Your task to perform on an android device: change notification settings in the gmail app Image 0: 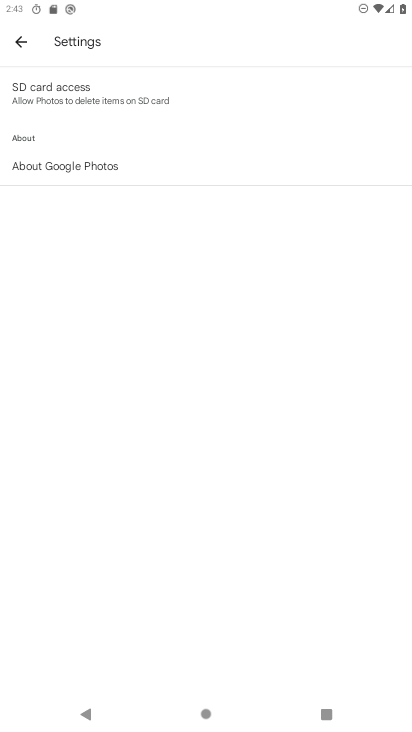
Step 0: press home button
Your task to perform on an android device: change notification settings in the gmail app Image 1: 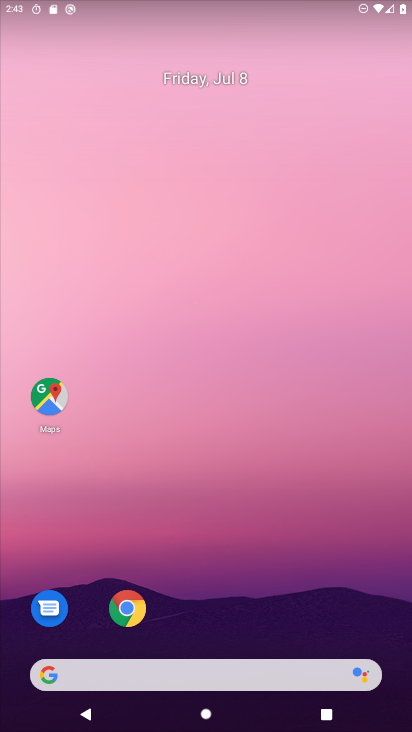
Step 1: drag from (241, 723) to (243, 166)
Your task to perform on an android device: change notification settings in the gmail app Image 2: 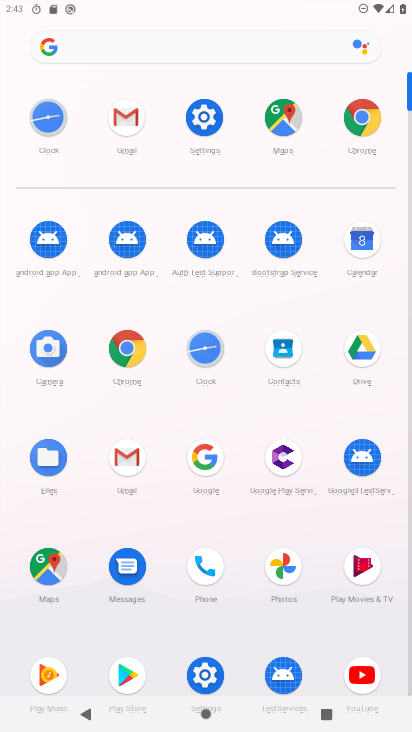
Step 2: click (124, 464)
Your task to perform on an android device: change notification settings in the gmail app Image 3: 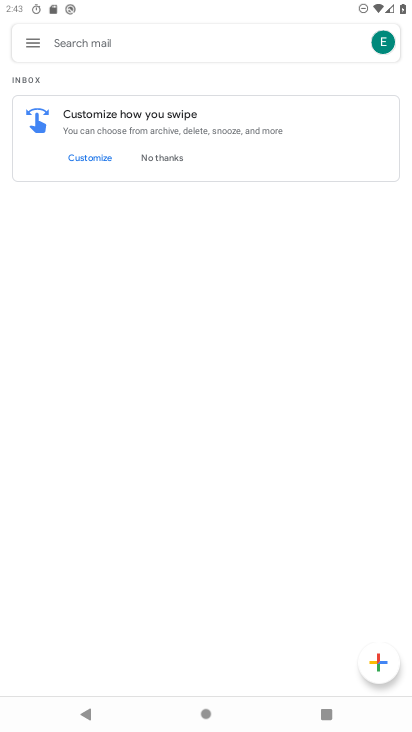
Step 3: click (32, 40)
Your task to perform on an android device: change notification settings in the gmail app Image 4: 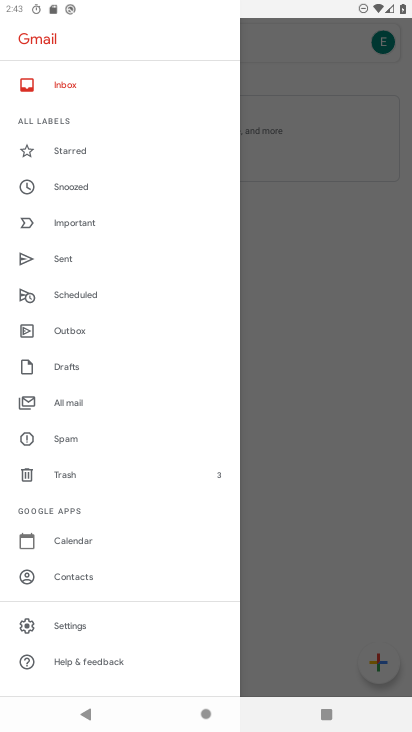
Step 4: click (82, 624)
Your task to perform on an android device: change notification settings in the gmail app Image 5: 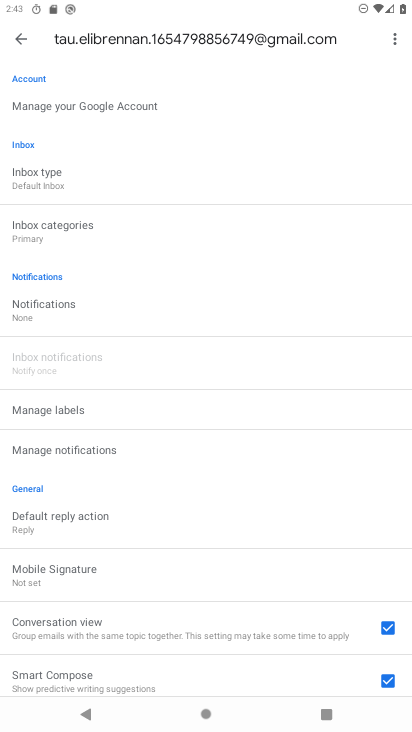
Step 5: click (49, 304)
Your task to perform on an android device: change notification settings in the gmail app Image 6: 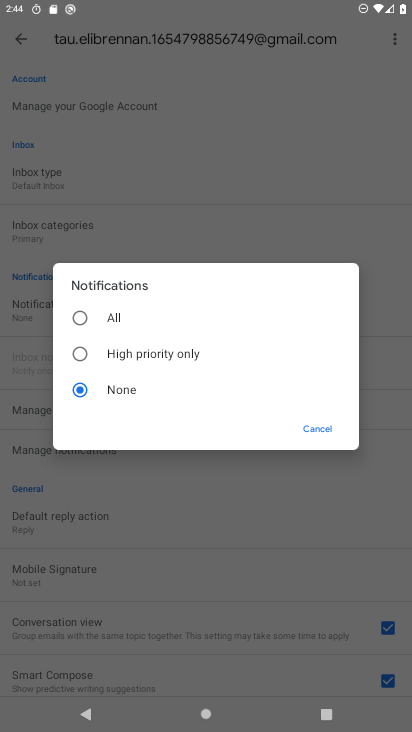
Step 6: click (78, 320)
Your task to perform on an android device: change notification settings in the gmail app Image 7: 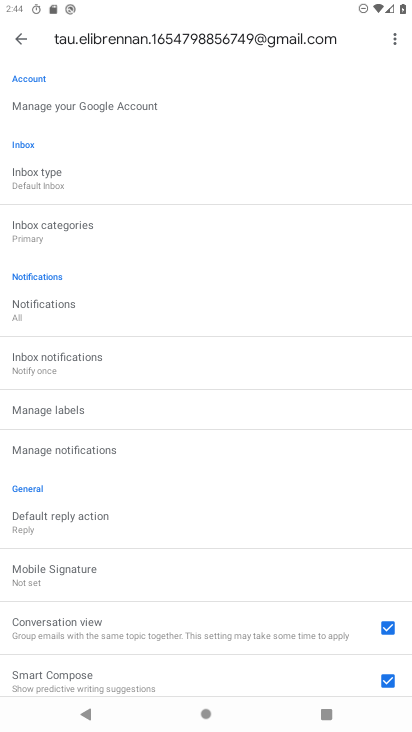
Step 7: task complete